Your task to perform on an android device: turn on showing notifications on the lock screen Image 0: 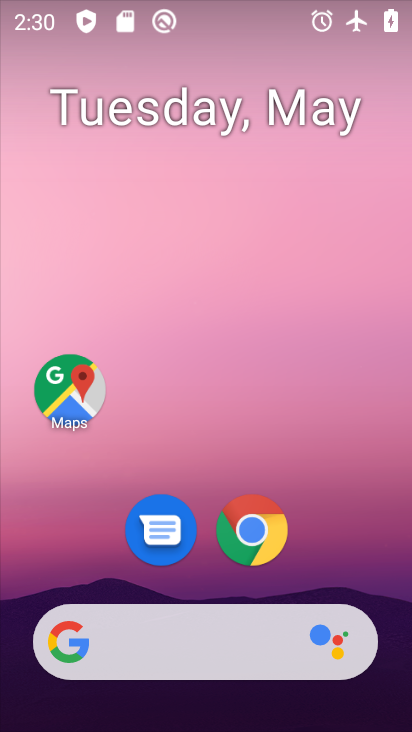
Step 0: press home button
Your task to perform on an android device: turn on showing notifications on the lock screen Image 1: 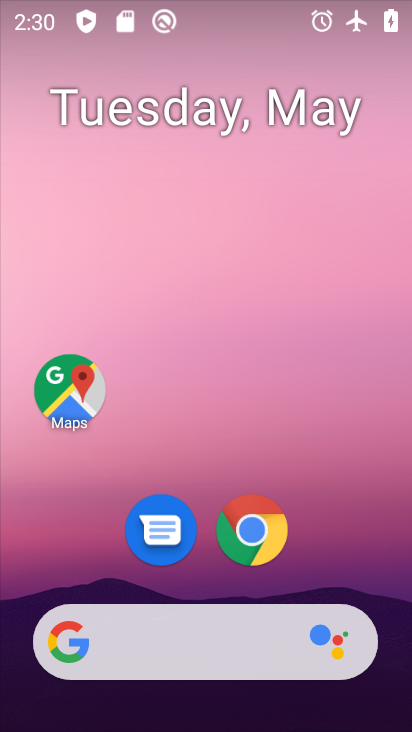
Step 1: drag from (197, 579) to (220, 277)
Your task to perform on an android device: turn on showing notifications on the lock screen Image 2: 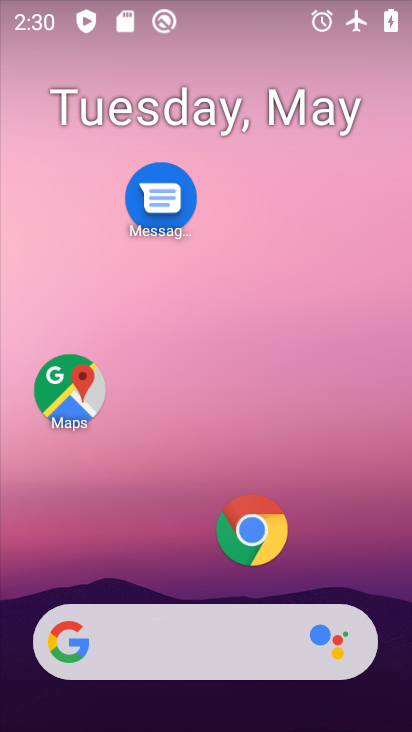
Step 2: drag from (188, 585) to (222, 196)
Your task to perform on an android device: turn on showing notifications on the lock screen Image 3: 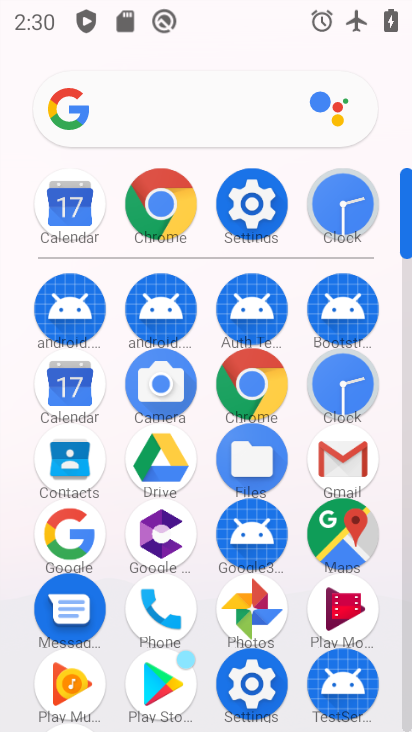
Step 3: click (222, 196)
Your task to perform on an android device: turn on showing notifications on the lock screen Image 4: 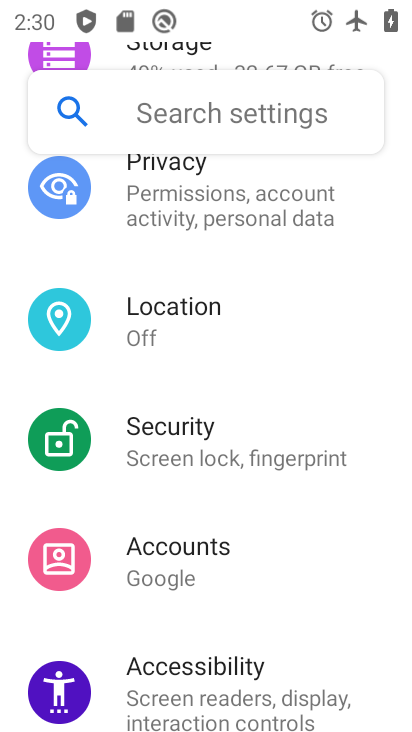
Step 4: drag from (222, 228) to (222, 484)
Your task to perform on an android device: turn on showing notifications on the lock screen Image 5: 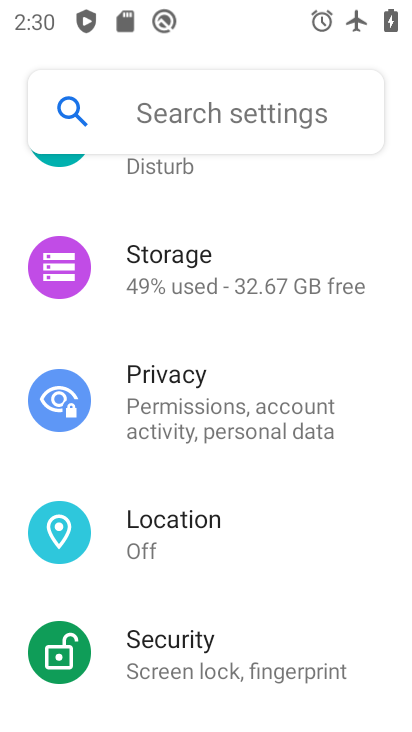
Step 5: drag from (242, 226) to (219, 680)
Your task to perform on an android device: turn on showing notifications on the lock screen Image 6: 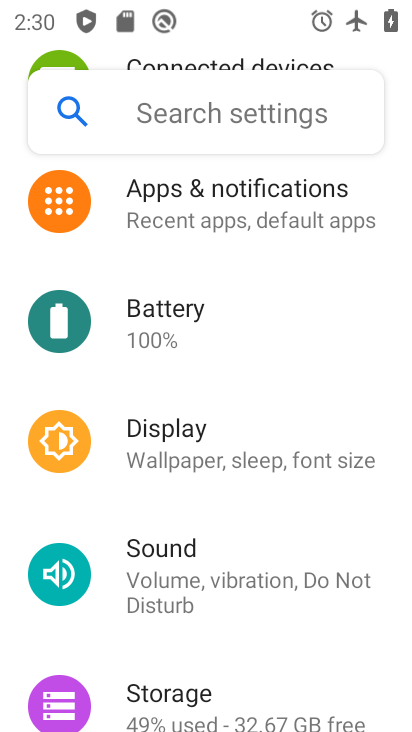
Step 6: click (257, 210)
Your task to perform on an android device: turn on showing notifications on the lock screen Image 7: 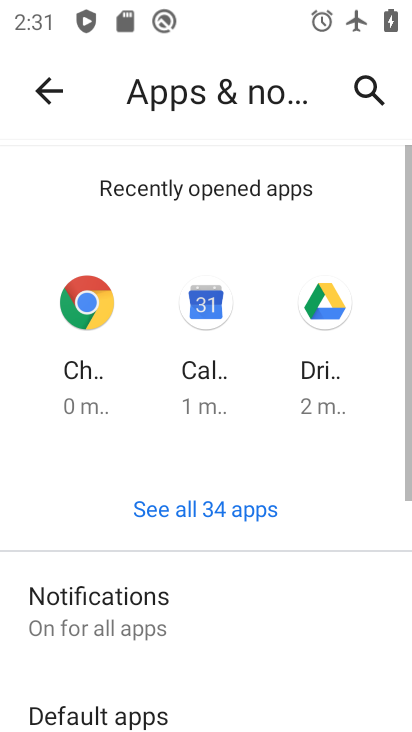
Step 7: click (213, 630)
Your task to perform on an android device: turn on showing notifications on the lock screen Image 8: 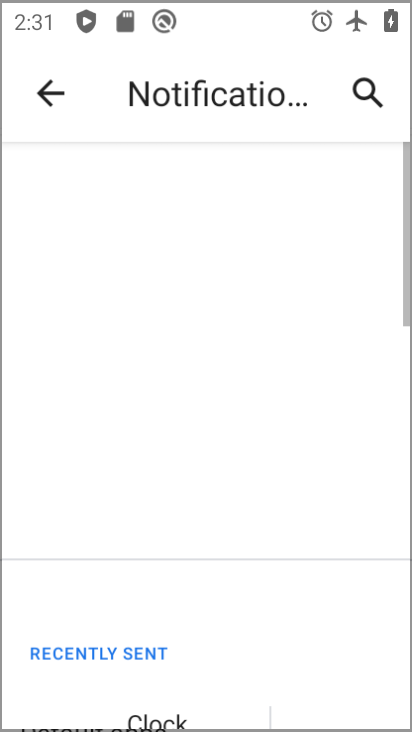
Step 8: drag from (213, 630) to (317, 327)
Your task to perform on an android device: turn on showing notifications on the lock screen Image 9: 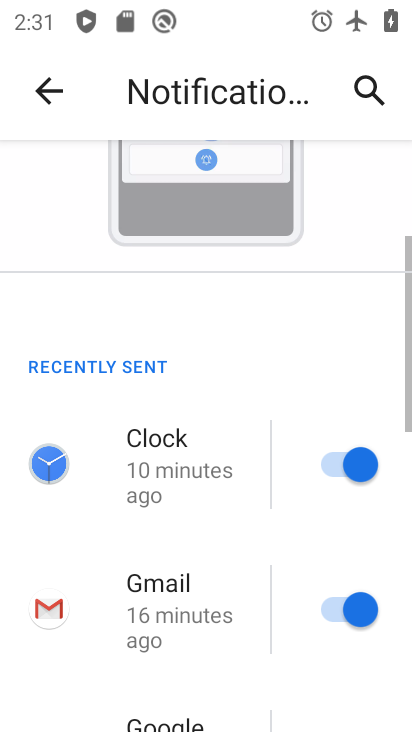
Step 9: drag from (253, 620) to (302, 358)
Your task to perform on an android device: turn on showing notifications on the lock screen Image 10: 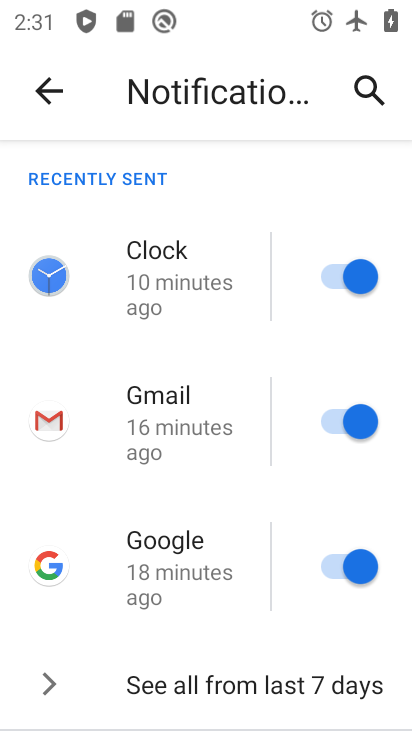
Step 10: drag from (226, 660) to (274, 418)
Your task to perform on an android device: turn on showing notifications on the lock screen Image 11: 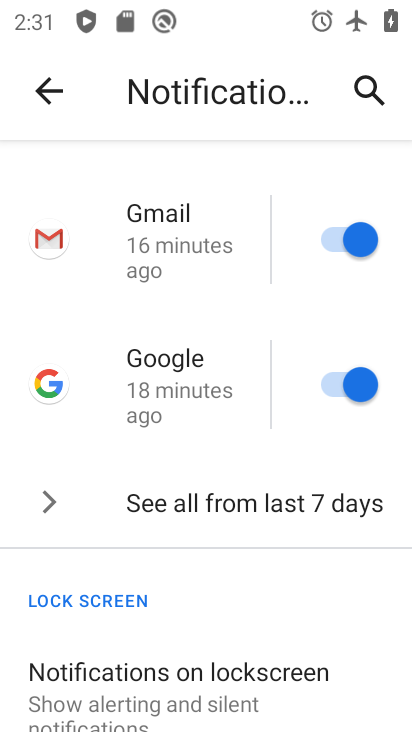
Step 11: click (252, 689)
Your task to perform on an android device: turn on showing notifications on the lock screen Image 12: 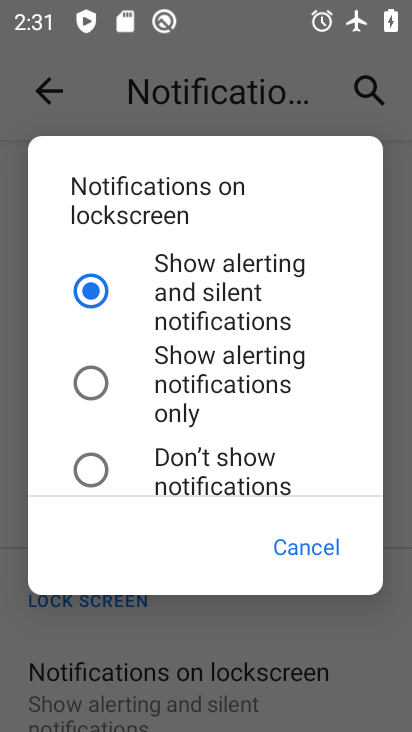
Step 12: task complete